Your task to perform on an android device: set the stopwatch Image 0: 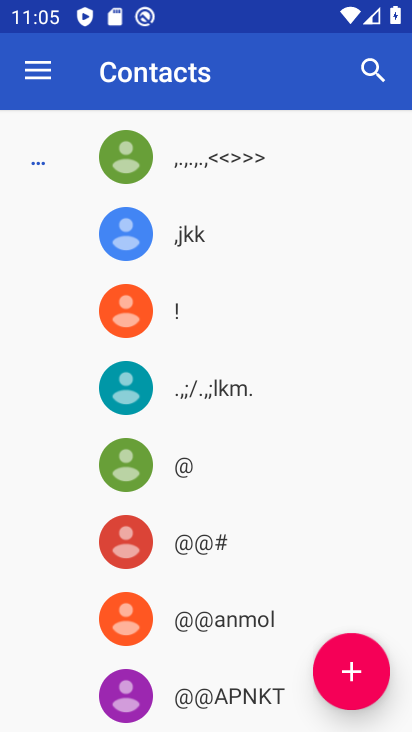
Step 0: press back button
Your task to perform on an android device: set the stopwatch Image 1: 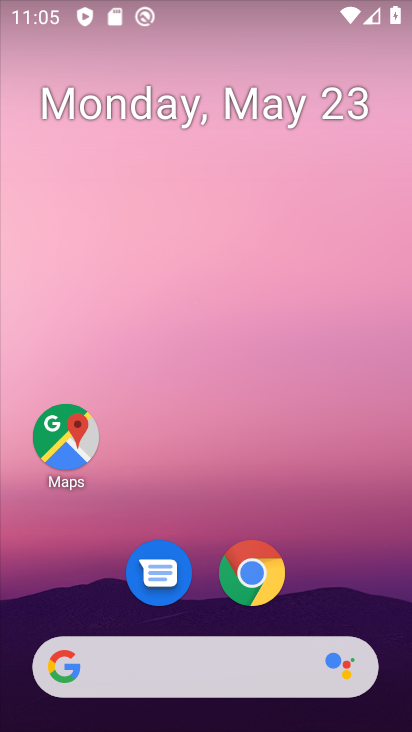
Step 1: drag from (300, 529) to (245, 185)
Your task to perform on an android device: set the stopwatch Image 2: 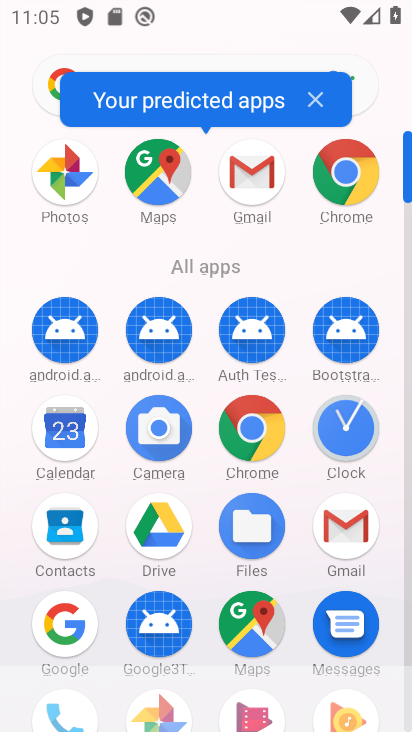
Step 2: drag from (107, 557) to (123, 397)
Your task to perform on an android device: set the stopwatch Image 3: 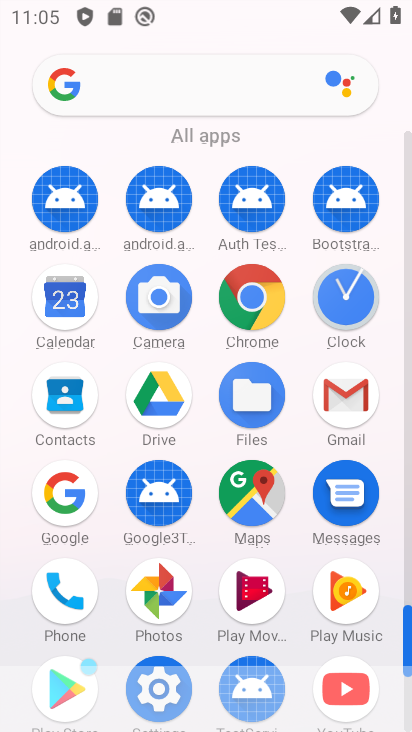
Step 3: drag from (111, 594) to (121, 427)
Your task to perform on an android device: set the stopwatch Image 4: 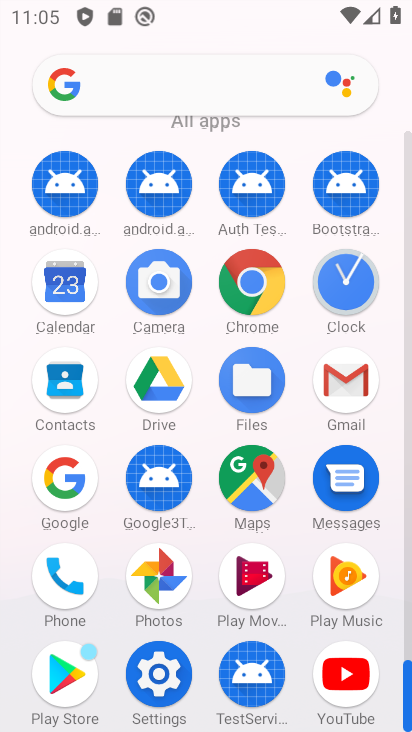
Step 4: click (344, 283)
Your task to perform on an android device: set the stopwatch Image 5: 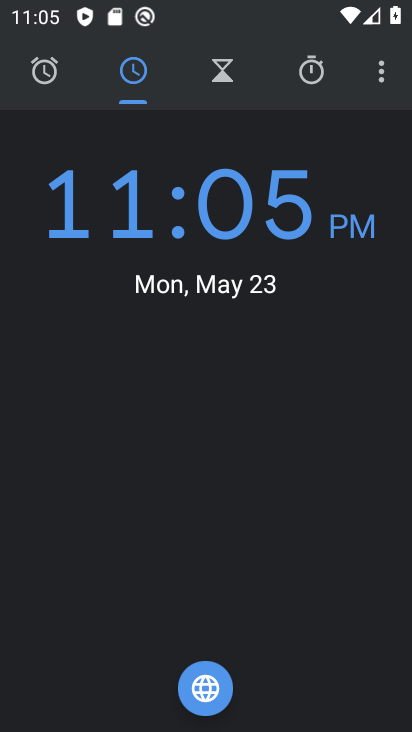
Step 5: click (308, 73)
Your task to perform on an android device: set the stopwatch Image 6: 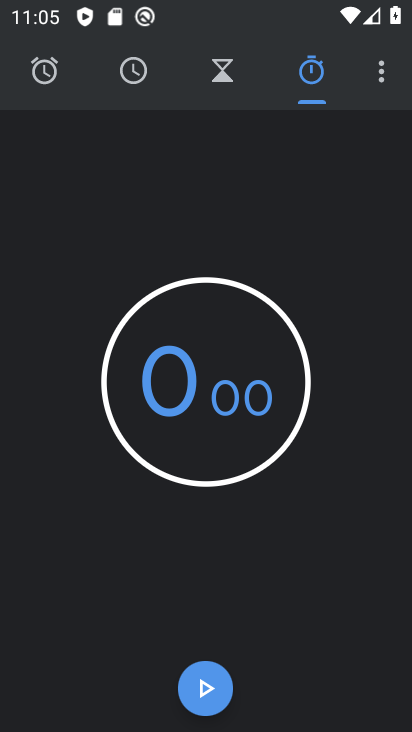
Step 6: click (206, 689)
Your task to perform on an android device: set the stopwatch Image 7: 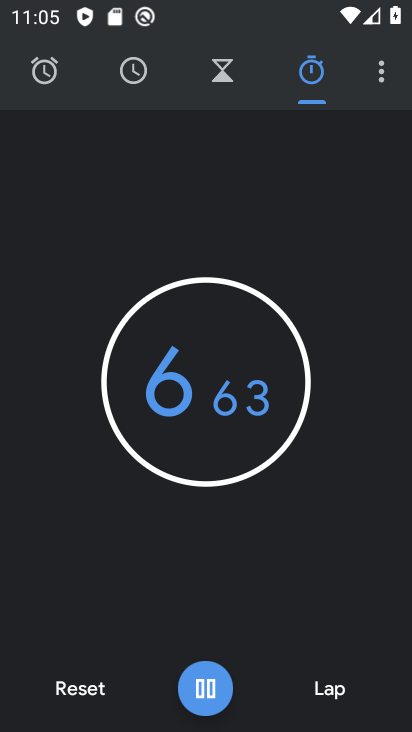
Step 7: click (206, 689)
Your task to perform on an android device: set the stopwatch Image 8: 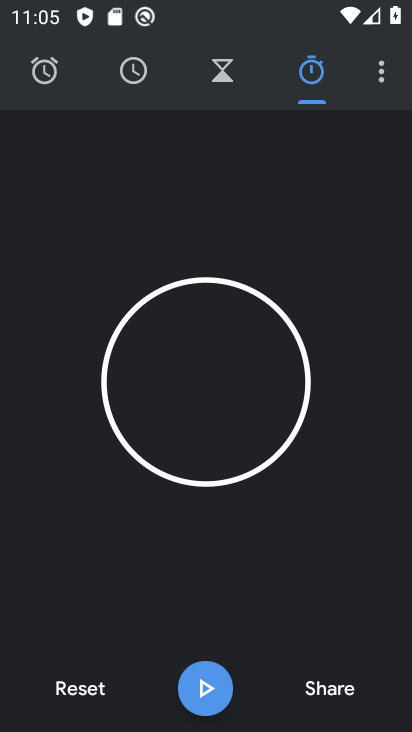
Step 8: task complete